Your task to perform on an android device: Go to Google Image 0: 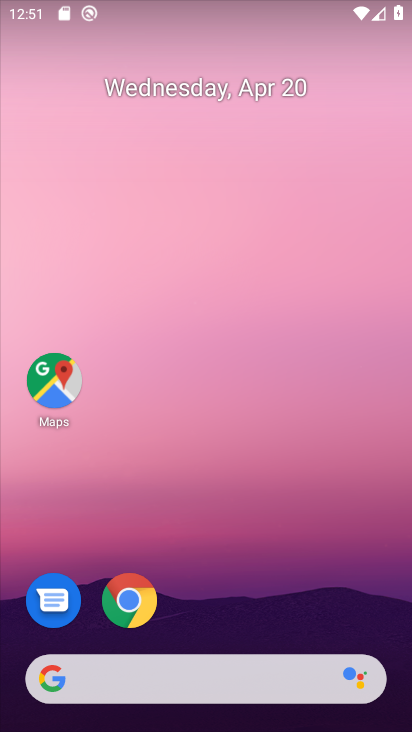
Step 0: drag from (225, 639) to (235, 276)
Your task to perform on an android device: Go to Google Image 1: 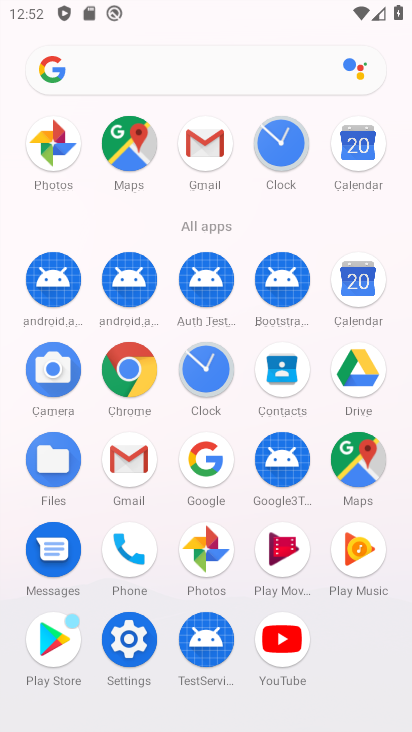
Step 1: click (206, 453)
Your task to perform on an android device: Go to Google Image 2: 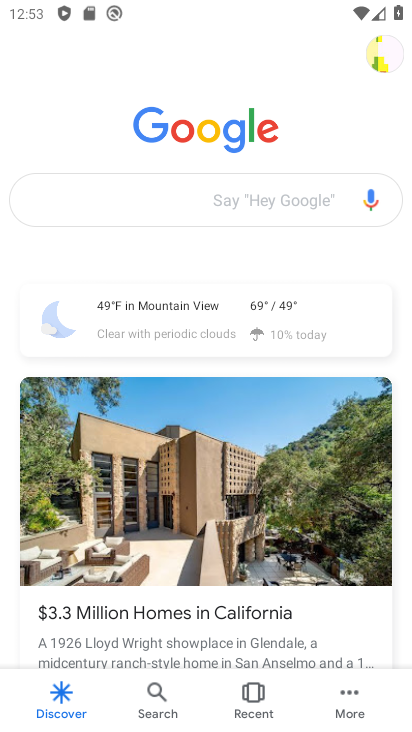
Step 2: task complete